Your task to perform on an android device: Play the last video I watched on Youtube Image 0: 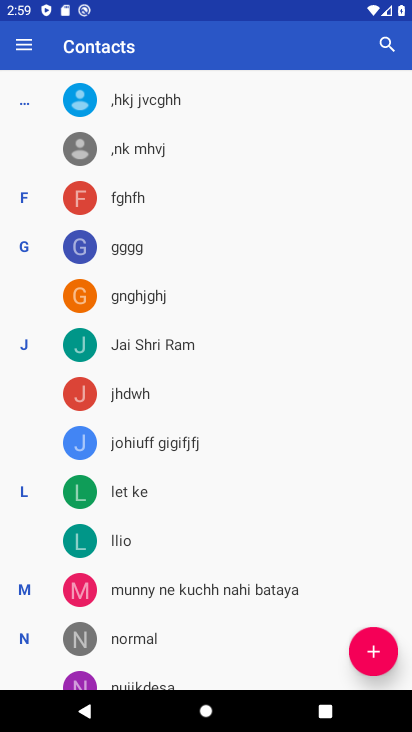
Step 0: press home button
Your task to perform on an android device: Play the last video I watched on Youtube Image 1: 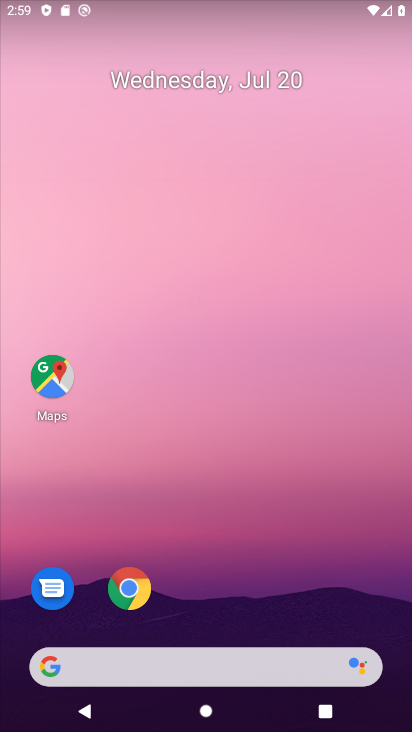
Step 1: drag from (297, 597) to (275, 52)
Your task to perform on an android device: Play the last video I watched on Youtube Image 2: 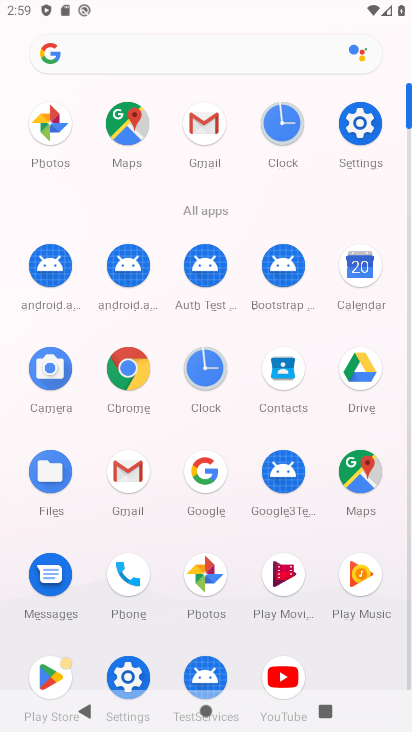
Step 2: click (280, 668)
Your task to perform on an android device: Play the last video I watched on Youtube Image 3: 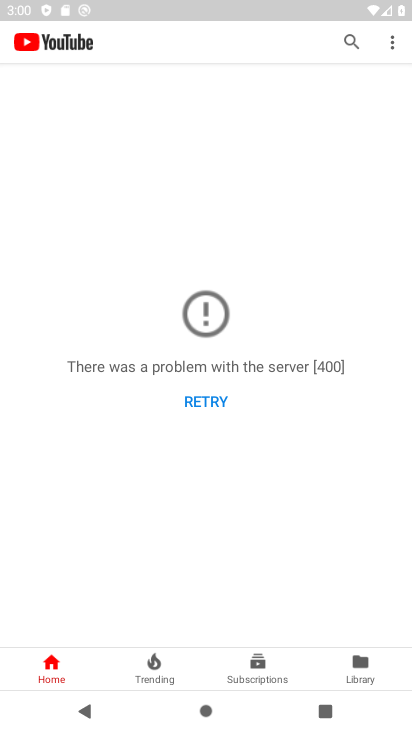
Step 3: click (358, 670)
Your task to perform on an android device: Play the last video I watched on Youtube Image 4: 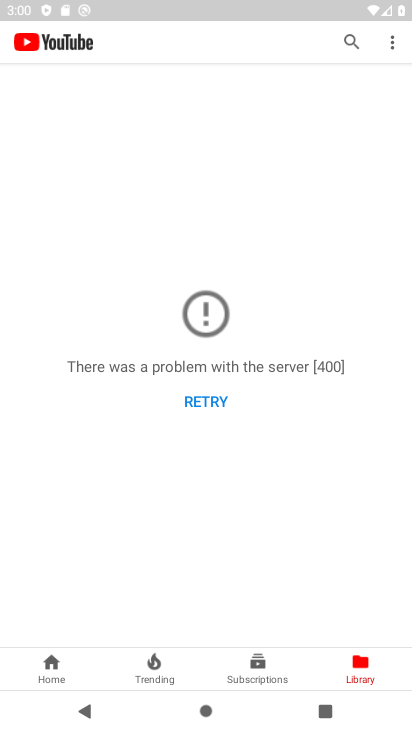
Step 4: click (224, 404)
Your task to perform on an android device: Play the last video I watched on Youtube Image 5: 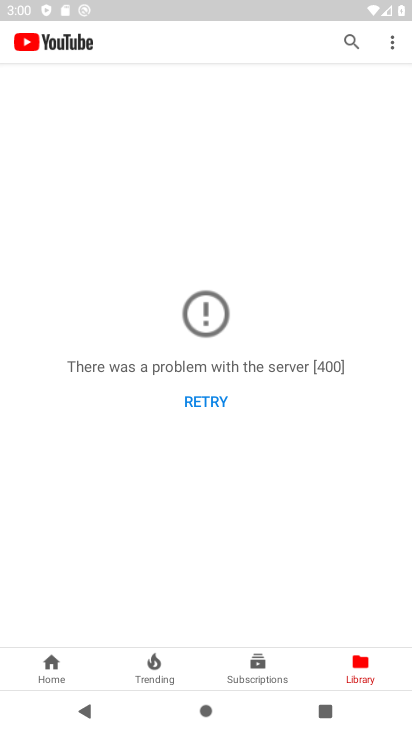
Step 5: click (211, 396)
Your task to perform on an android device: Play the last video I watched on Youtube Image 6: 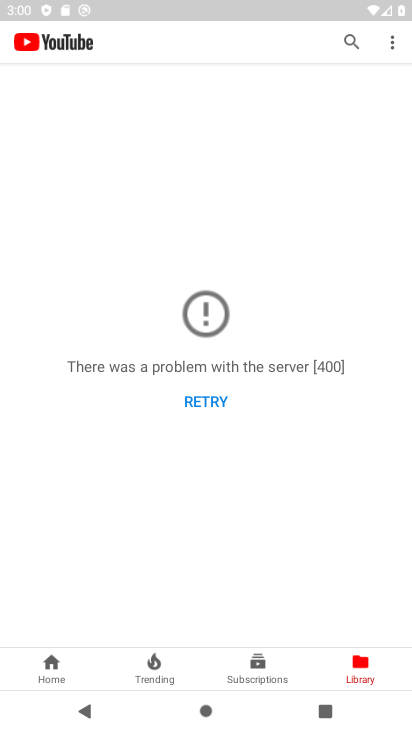
Step 6: task complete